Your task to perform on an android device: Open maps Image 0: 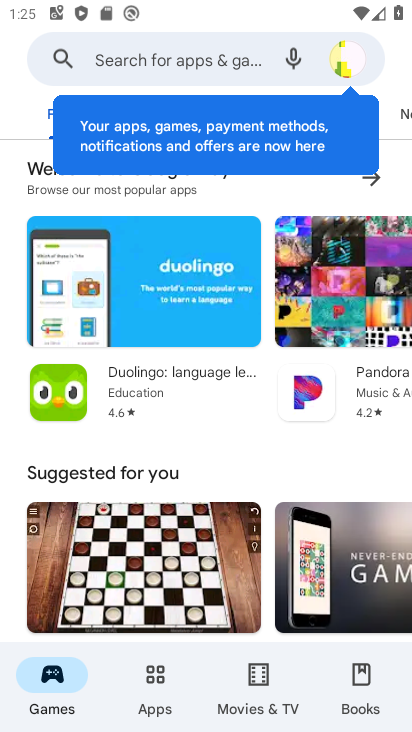
Step 0: press back button
Your task to perform on an android device: Open maps Image 1: 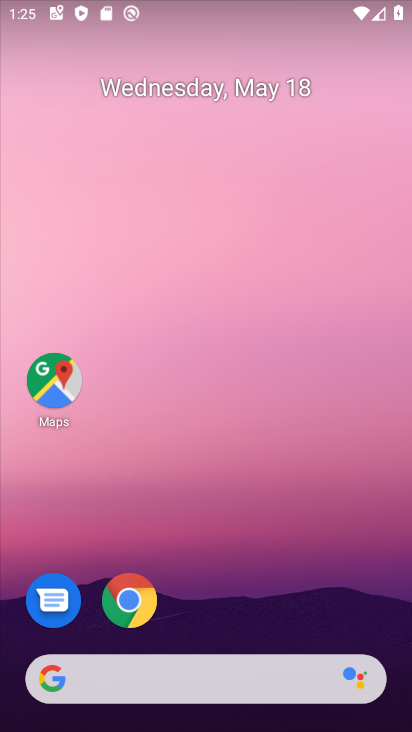
Step 1: click (53, 380)
Your task to perform on an android device: Open maps Image 2: 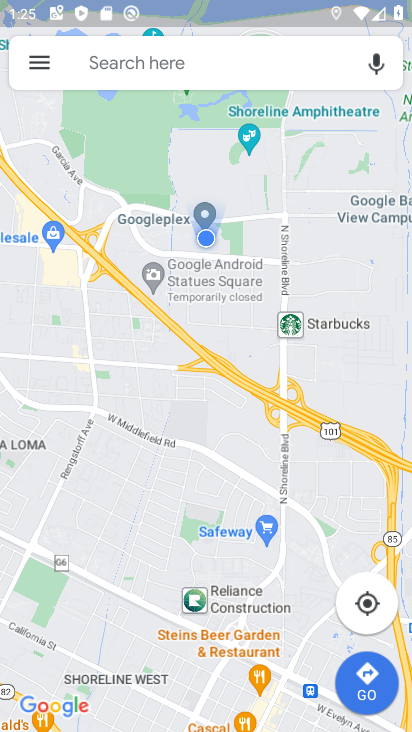
Step 2: task complete